Your task to perform on an android device: What is the recent news? Image 0: 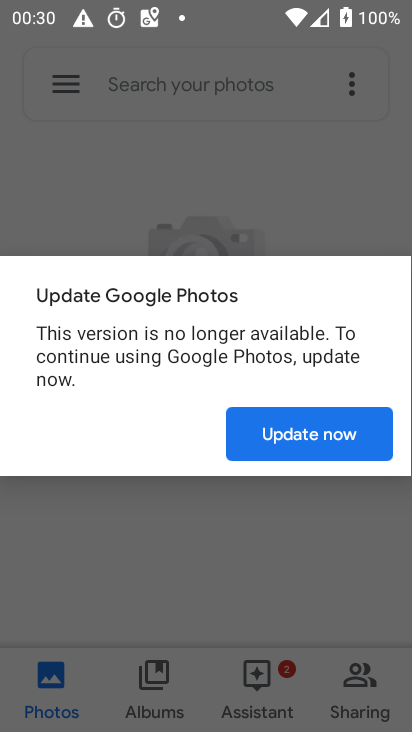
Step 0: click (250, 168)
Your task to perform on an android device: What is the recent news? Image 1: 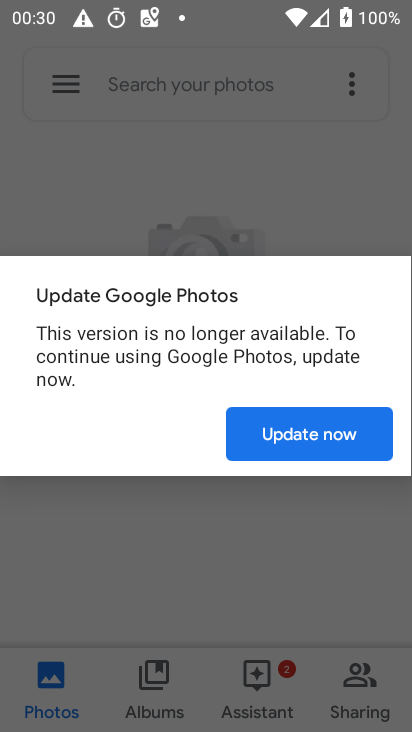
Step 1: press back button
Your task to perform on an android device: What is the recent news? Image 2: 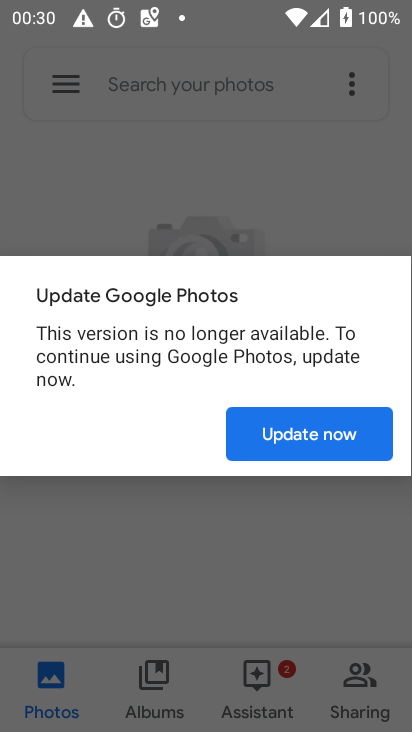
Step 2: press home button
Your task to perform on an android device: What is the recent news? Image 3: 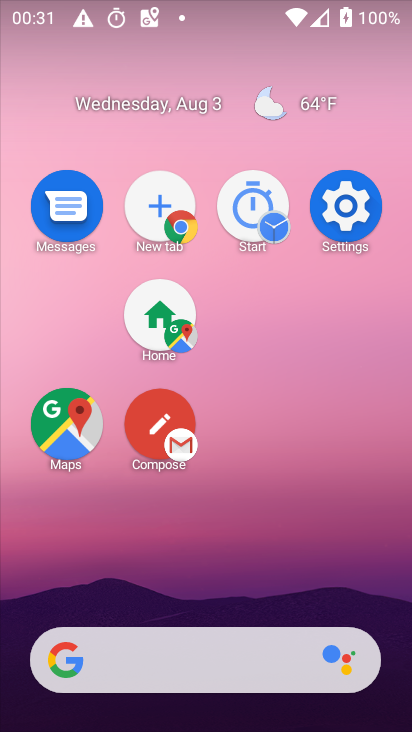
Step 3: drag from (246, 716) to (119, 106)
Your task to perform on an android device: What is the recent news? Image 4: 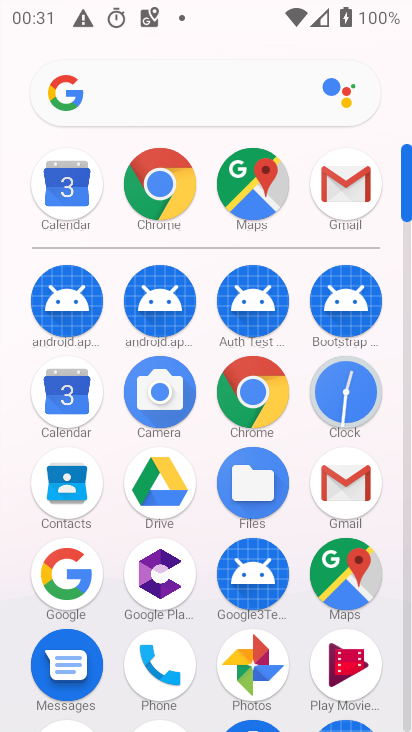
Step 4: click (161, 179)
Your task to perform on an android device: What is the recent news? Image 5: 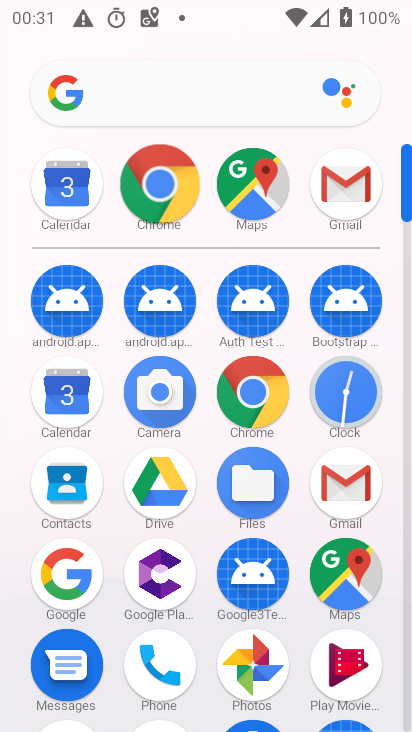
Step 5: click (148, 191)
Your task to perform on an android device: What is the recent news? Image 6: 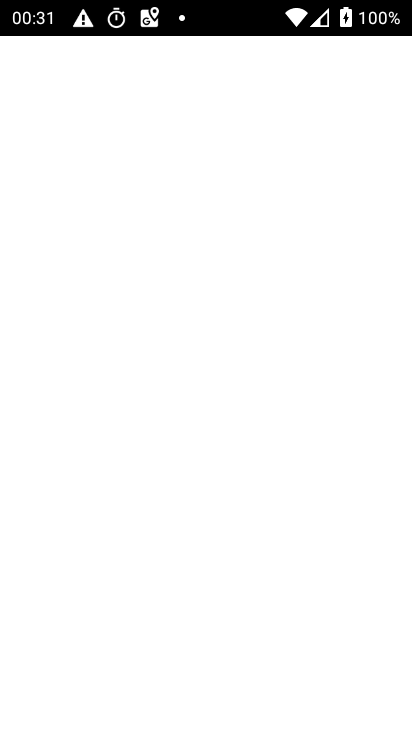
Step 6: click (152, 189)
Your task to perform on an android device: What is the recent news? Image 7: 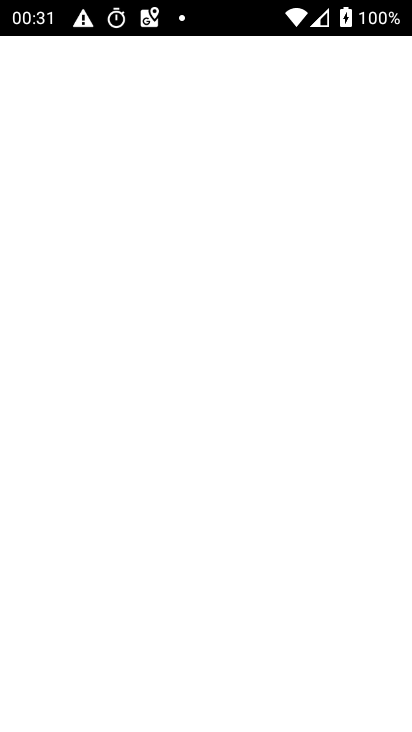
Step 7: click (154, 189)
Your task to perform on an android device: What is the recent news? Image 8: 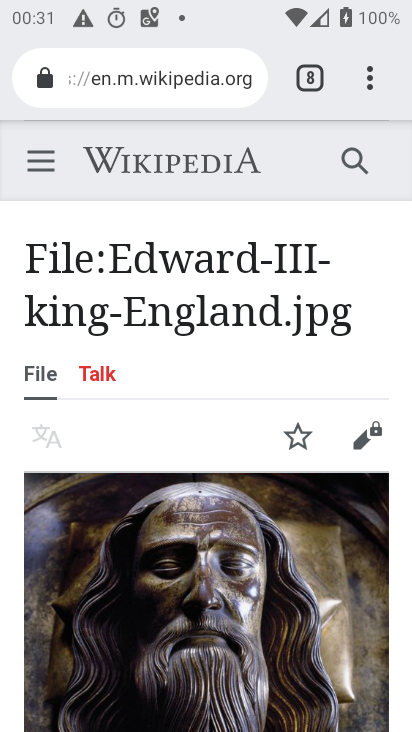
Step 8: click (370, 84)
Your task to perform on an android device: What is the recent news? Image 9: 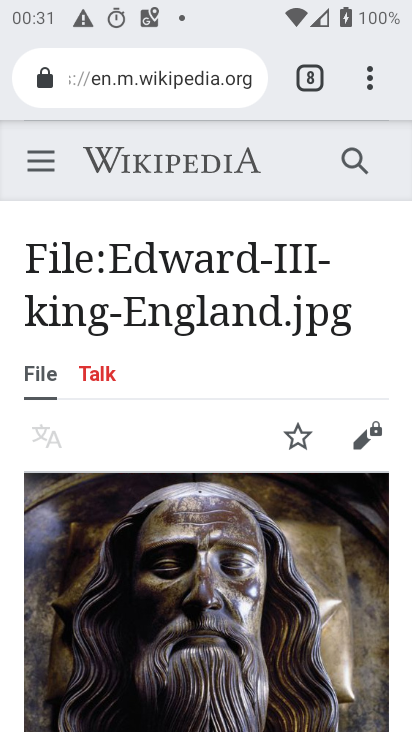
Step 9: task complete